Your task to perform on an android device: Go to display settings Image 0: 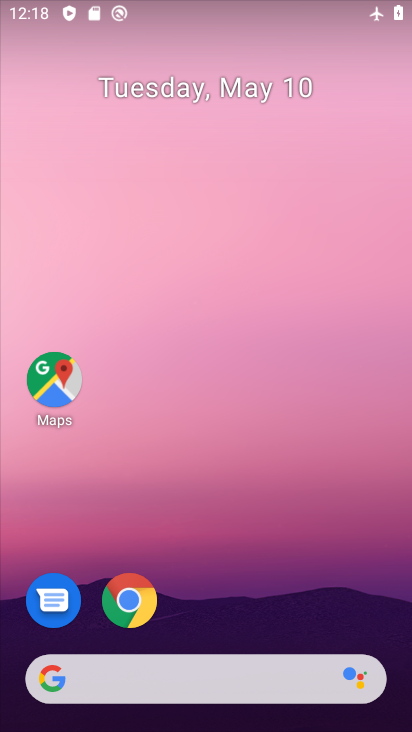
Step 0: drag from (285, 613) to (319, 2)
Your task to perform on an android device: Go to display settings Image 1: 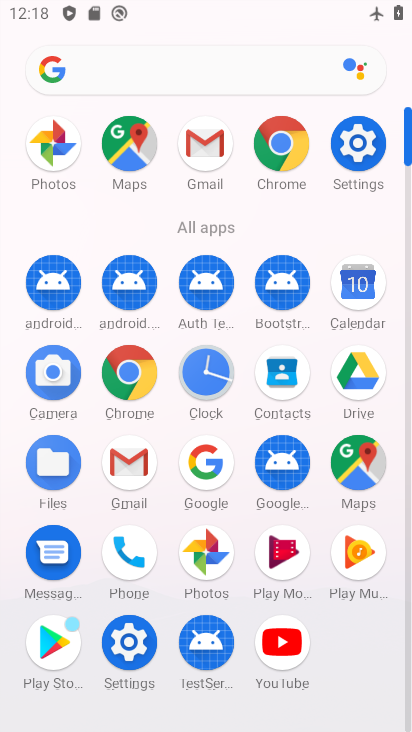
Step 1: click (352, 171)
Your task to perform on an android device: Go to display settings Image 2: 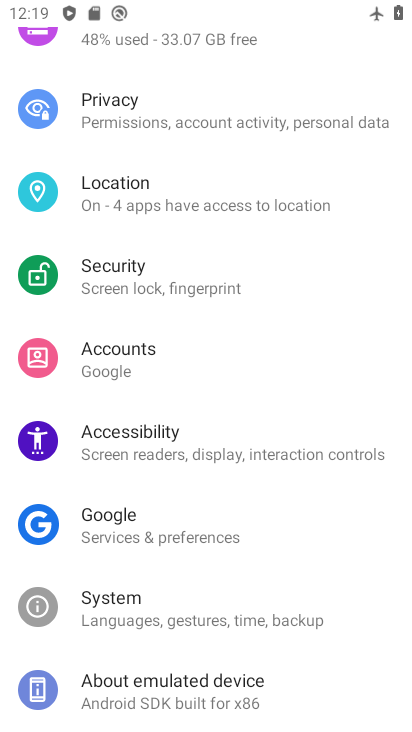
Step 2: drag from (134, 219) to (114, 442)
Your task to perform on an android device: Go to display settings Image 3: 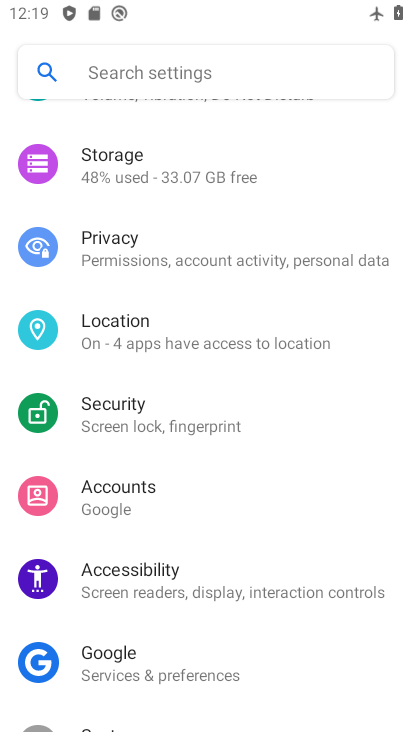
Step 3: drag from (166, 269) to (158, 558)
Your task to perform on an android device: Go to display settings Image 4: 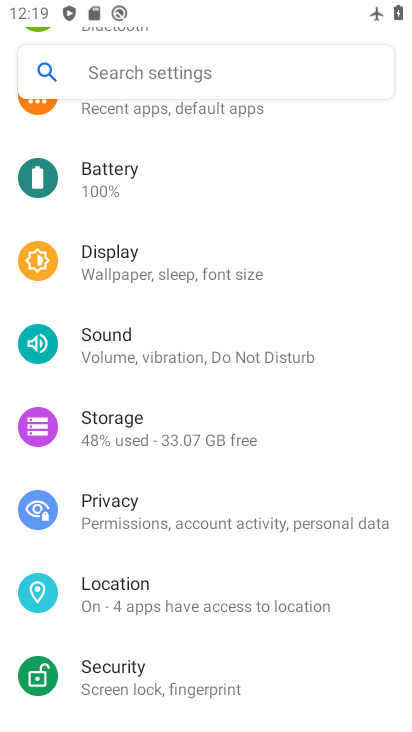
Step 4: click (188, 276)
Your task to perform on an android device: Go to display settings Image 5: 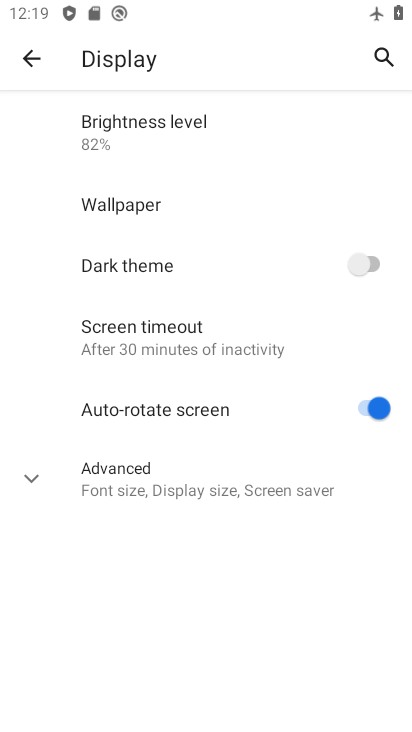
Step 5: task complete